Your task to perform on an android device: Go to Android settings Image 0: 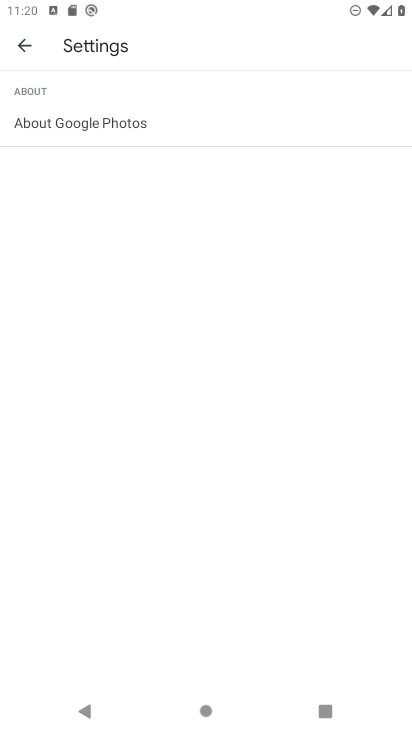
Step 0: press home button
Your task to perform on an android device: Go to Android settings Image 1: 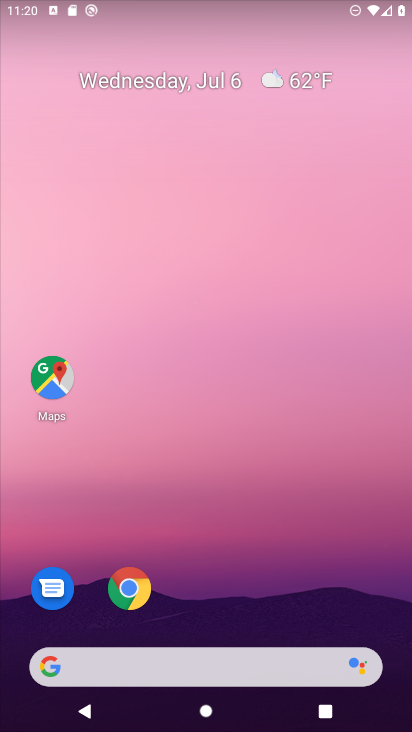
Step 1: drag from (378, 618) to (331, 41)
Your task to perform on an android device: Go to Android settings Image 2: 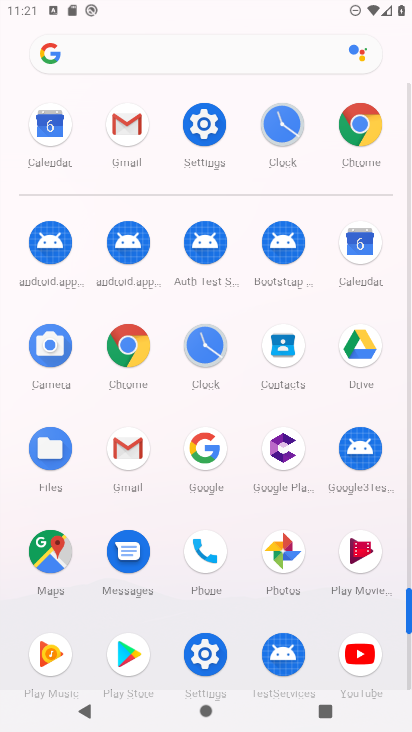
Step 2: click (207, 655)
Your task to perform on an android device: Go to Android settings Image 3: 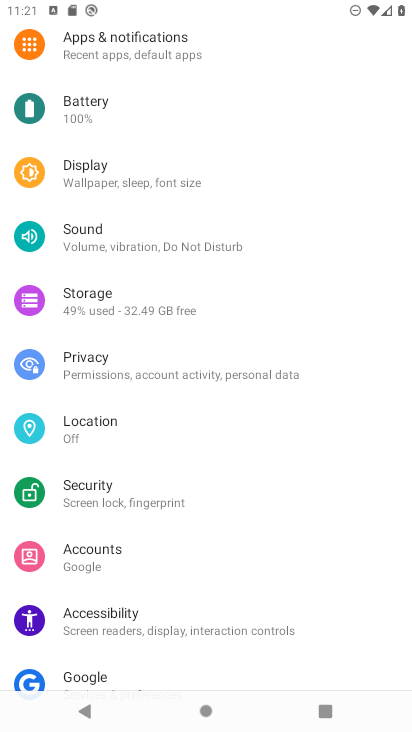
Step 3: drag from (335, 593) to (314, 182)
Your task to perform on an android device: Go to Android settings Image 4: 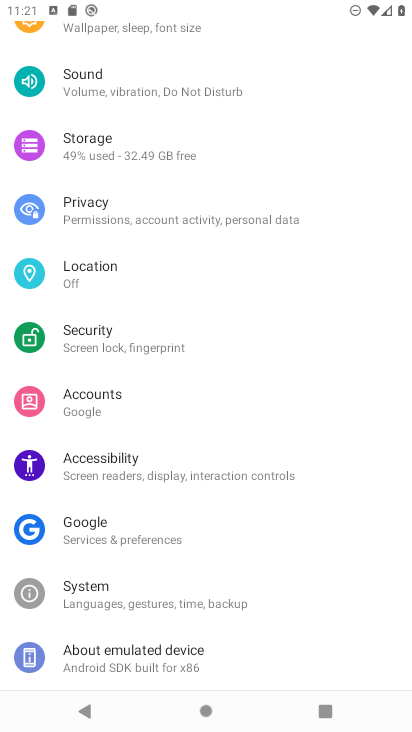
Step 4: click (87, 647)
Your task to perform on an android device: Go to Android settings Image 5: 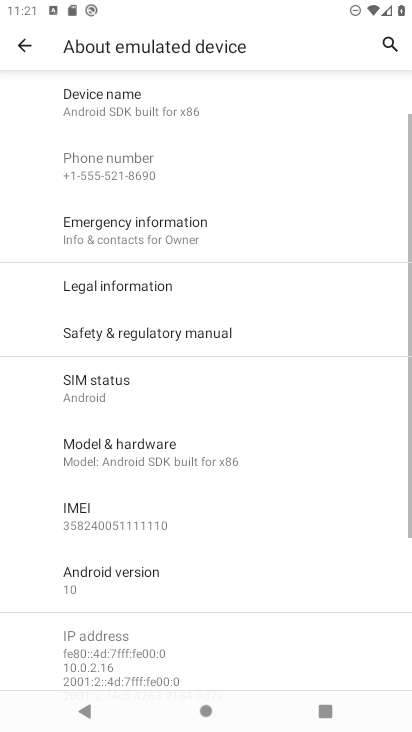
Step 5: task complete